Your task to perform on an android device: turn on data saver in the chrome app Image 0: 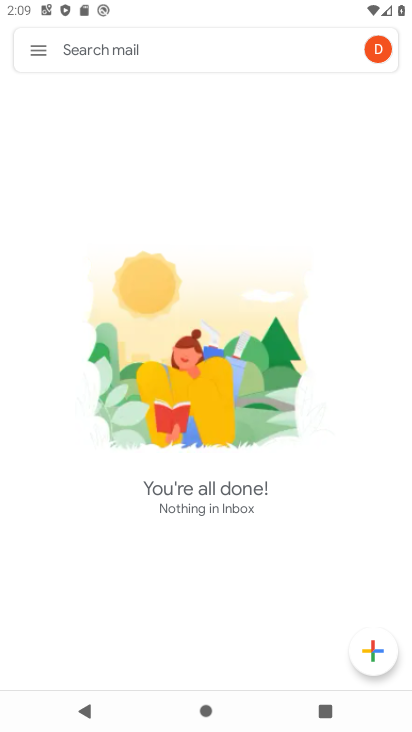
Step 0: press home button
Your task to perform on an android device: turn on data saver in the chrome app Image 1: 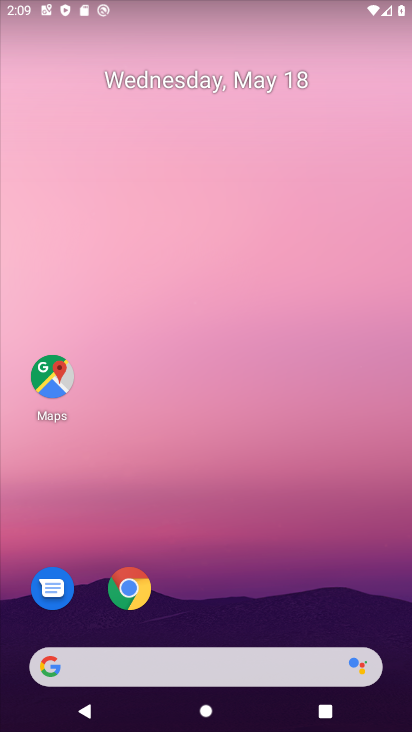
Step 1: drag from (342, 617) to (316, 99)
Your task to perform on an android device: turn on data saver in the chrome app Image 2: 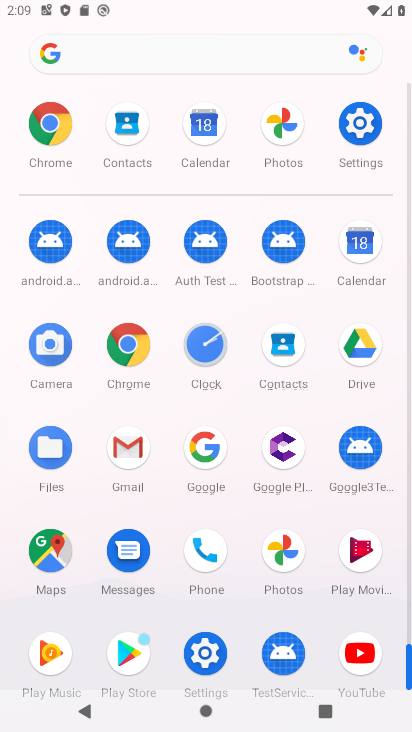
Step 2: click (141, 350)
Your task to perform on an android device: turn on data saver in the chrome app Image 3: 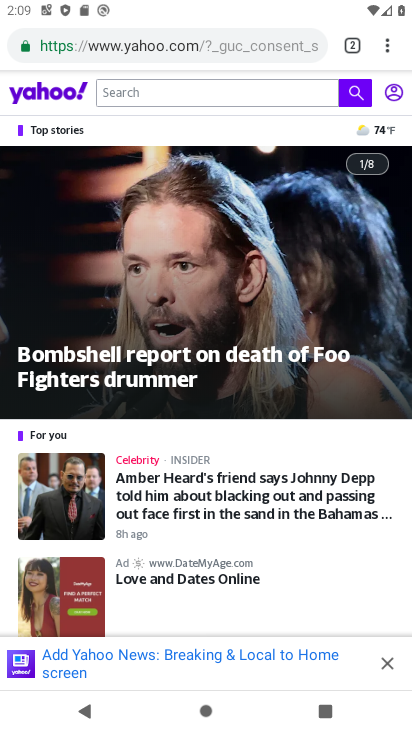
Step 3: click (388, 46)
Your task to perform on an android device: turn on data saver in the chrome app Image 4: 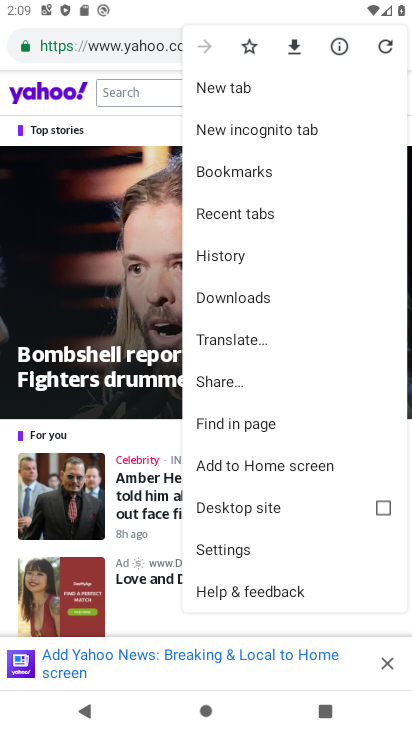
Step 4: click (237, 557)
Your task to perform on an android device: turn on data saver in the chrome app Image 5: 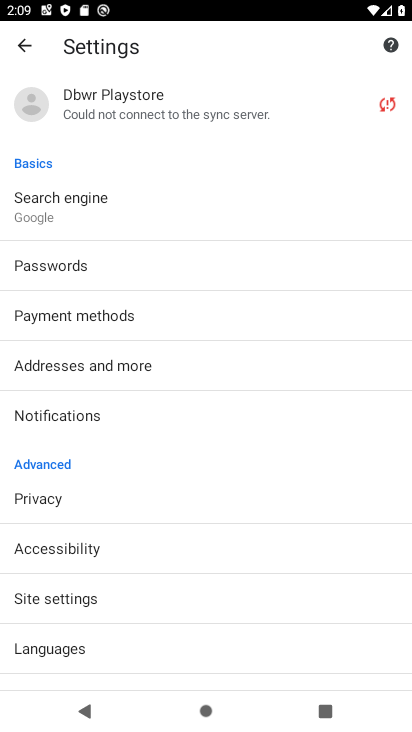
Step 5: drag from (210, 581) to (233, 434)
Your task to perform on an android device: turn on data saver in the chrome app Image 6: 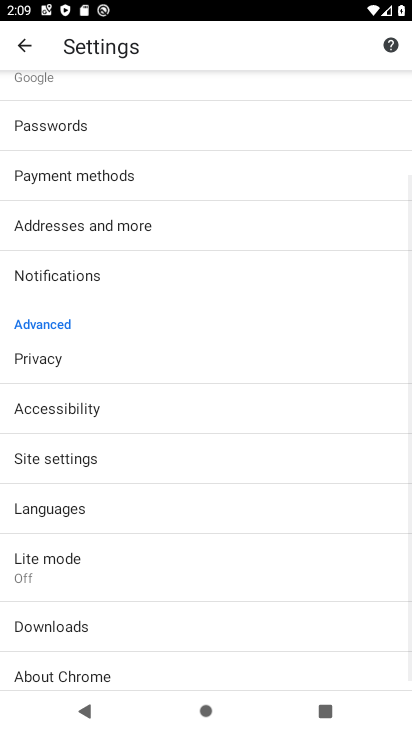
Step 6: drag from (210, 590) to (202, 410)
Your task to perform on an android device: turn on data saver in the chrome app Image 7: 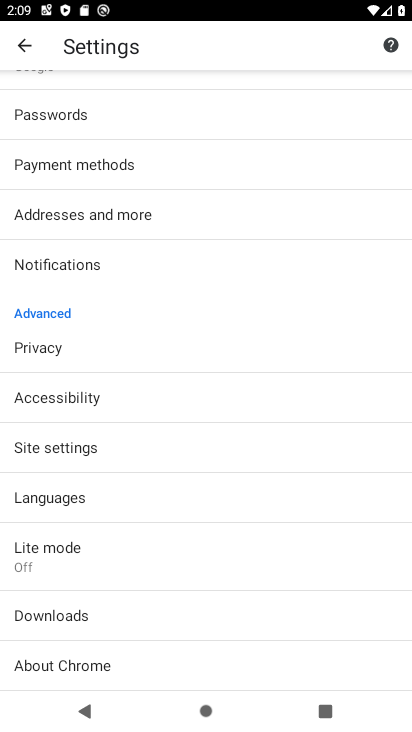
Step 7: drag from (221, 359) to (196, 520)
Your task to perform on an android device: turn on data saver in the chrome app Image 8: 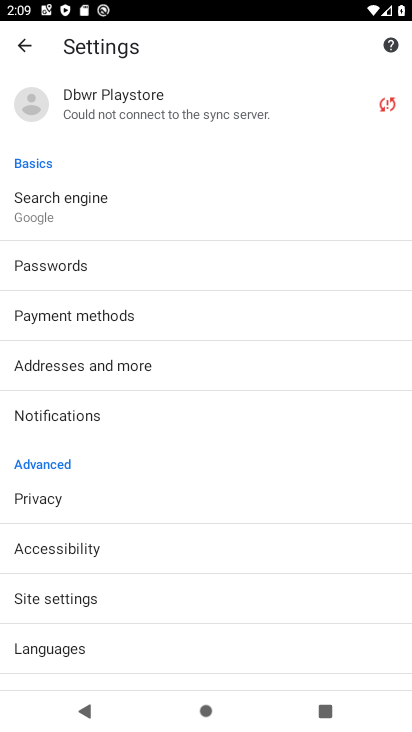
Step 8: drag from (222, 388) to (207, 504)
Your task to perform on an android device: turn on data saver in the chrome app Image 9: 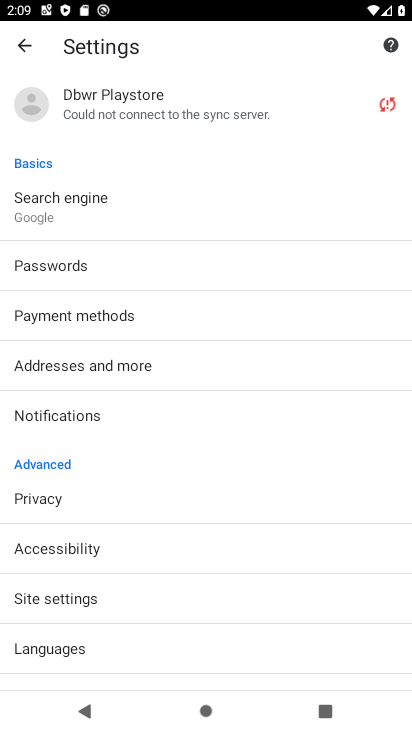
Step 9: drag from (211, 535) to (219, 353)
Your task to perform on an android device: turn on data saver in the chrome app Image 10: 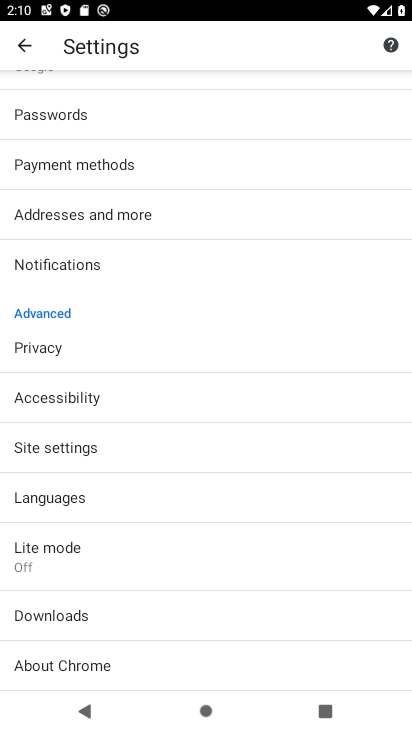
Step 10: drag from (197, 599) to (204, 445)
Your task to perform on an android device: turn on data saver in the chrome app Image 11: 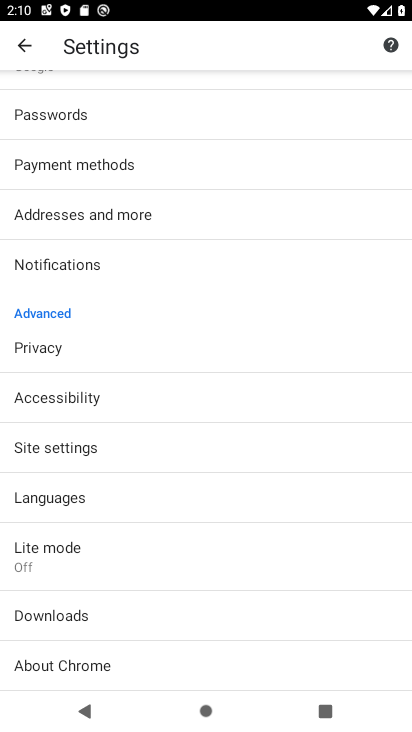
Step 11: click (101, 563)
Your task to perform on an android device: turn on data saver in the chrome app Image 12: 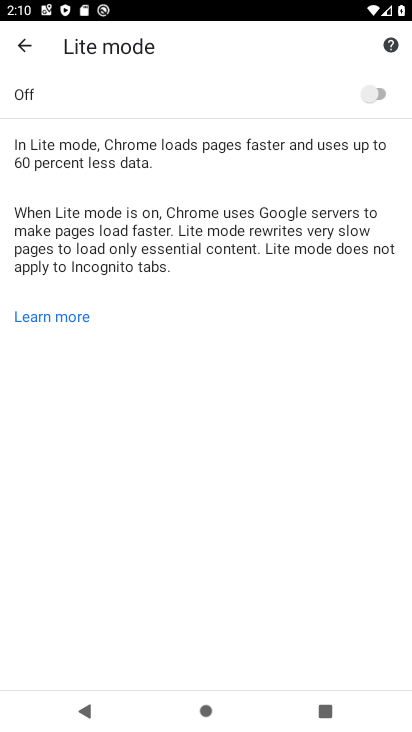
Step 12: click (373, 101)
Your task to perform on an android device: turn on data saver in the chrome app Image 13: 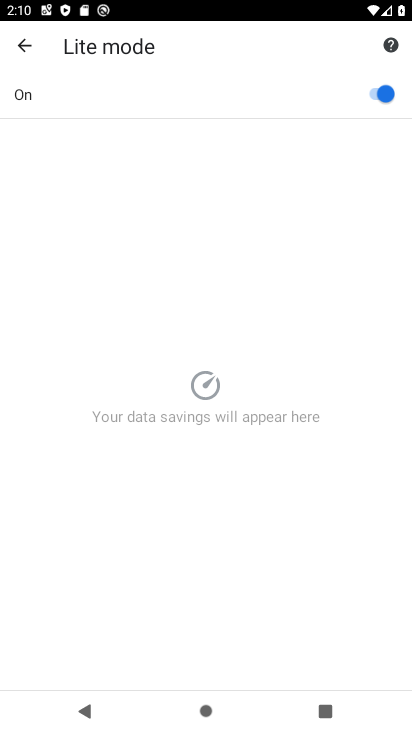
Step 13: task complete